Your task to perform on an android device: Go to display settings Image 0: 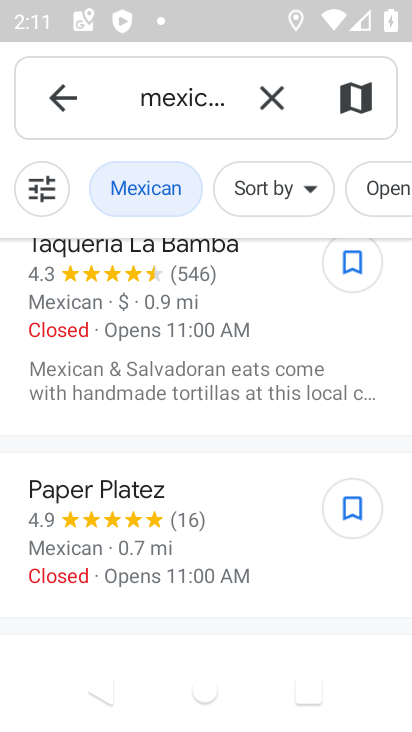
Step 0: press home button
Your task to perform on an android device: Go to display settings Image 1: 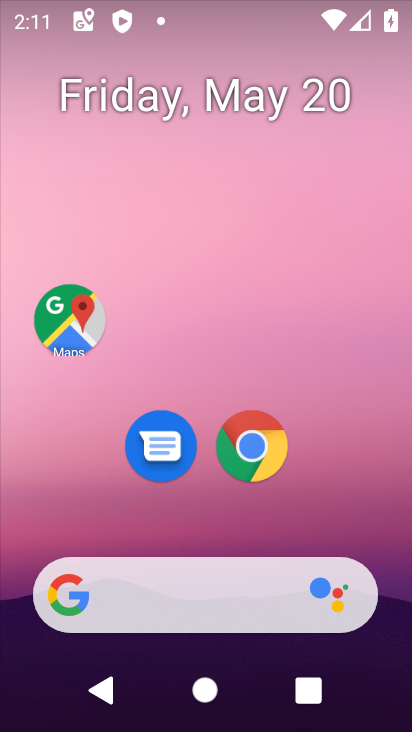
Step 1: drag from (378, 560) to (361, 9)
Your task to perform on an android device: Go to display settings Image 2: 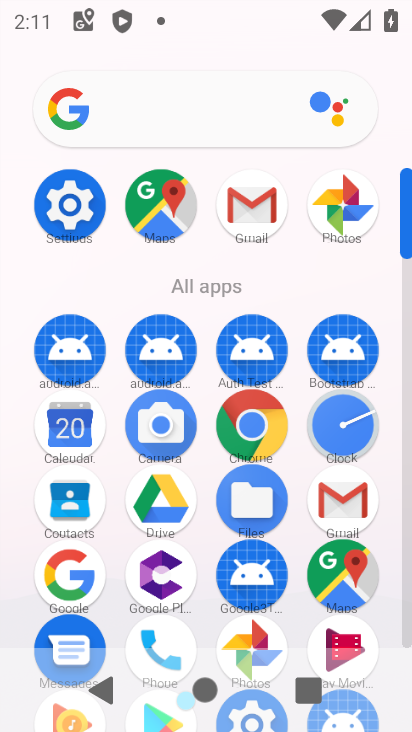
Step 2: click (70, 214)
Your task to perform on an android device: Go to display settings Image 3: 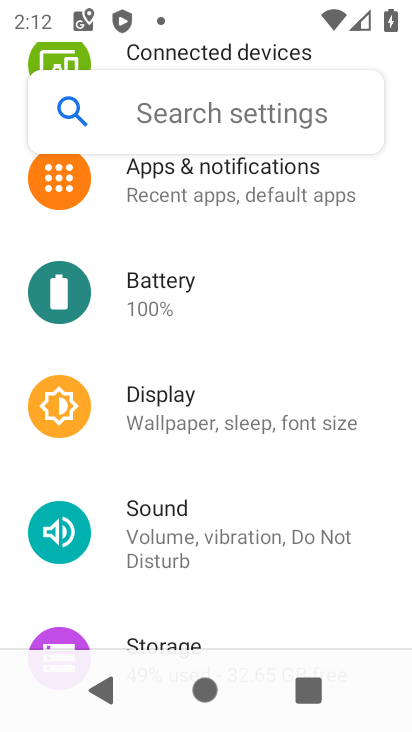
Step 3: click (208, 417)
Your task to perform on an android device: Go to display settings Image 4: 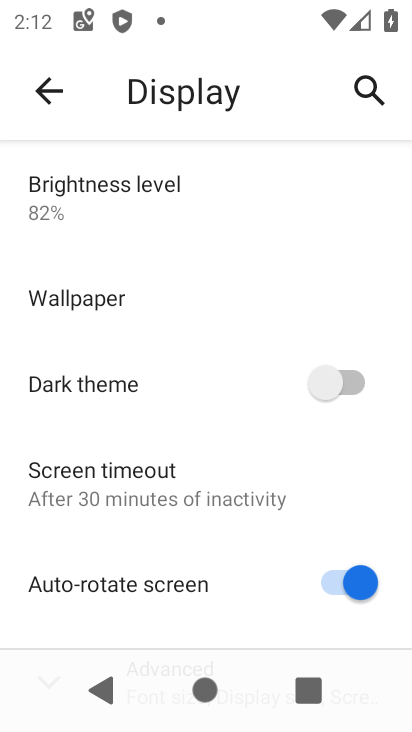
Step 4: task complete